Your task to perform on an android device: turn on data saver in the chrome app Image 0: 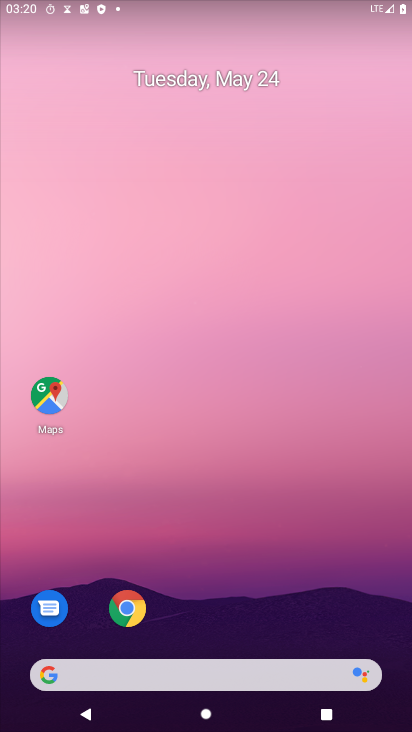
Step 0: click (131, 611)
Your task to perform on an android device: turn on data saver in the chrome app Image 1: 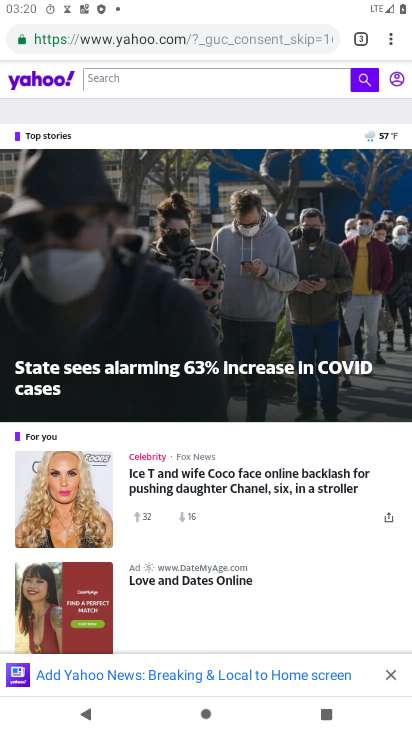
Step 1: click (394, 51)
Your task to perform on an android device: turn on data saver in the chrome app Image 2: 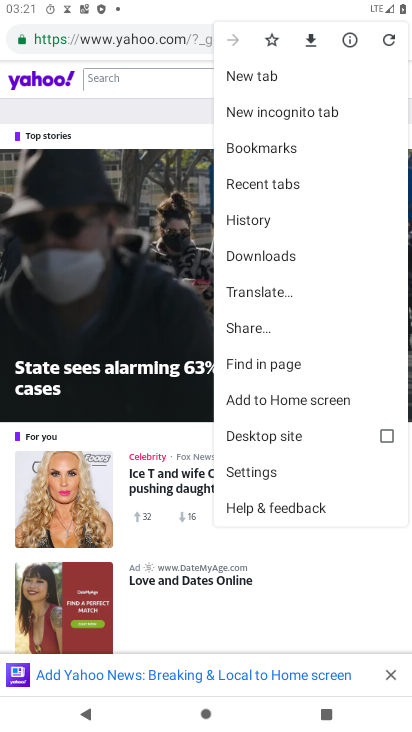
Step 2: click (301, 469)
Your task to perform on an android device: turn on data saver in the chrome app Image 3: 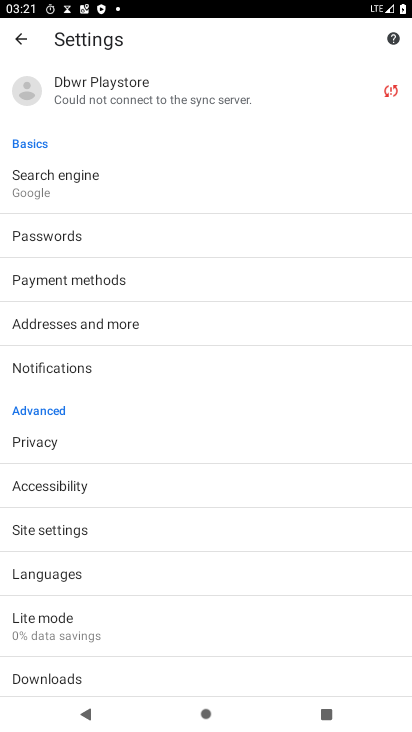
Step 3: click (227, 633)
Your task to perform on an android device: turn on data saver in the chrome app Image 4: 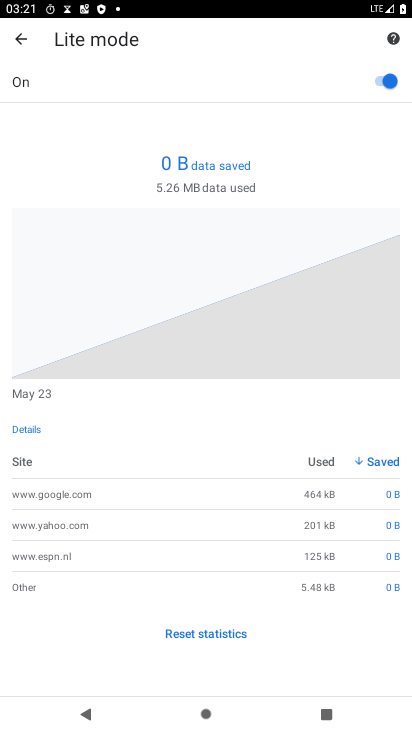
Step 4: task complete